Your task to perform on an android device: Search for flights from Zurich to Helsinki Image 0: 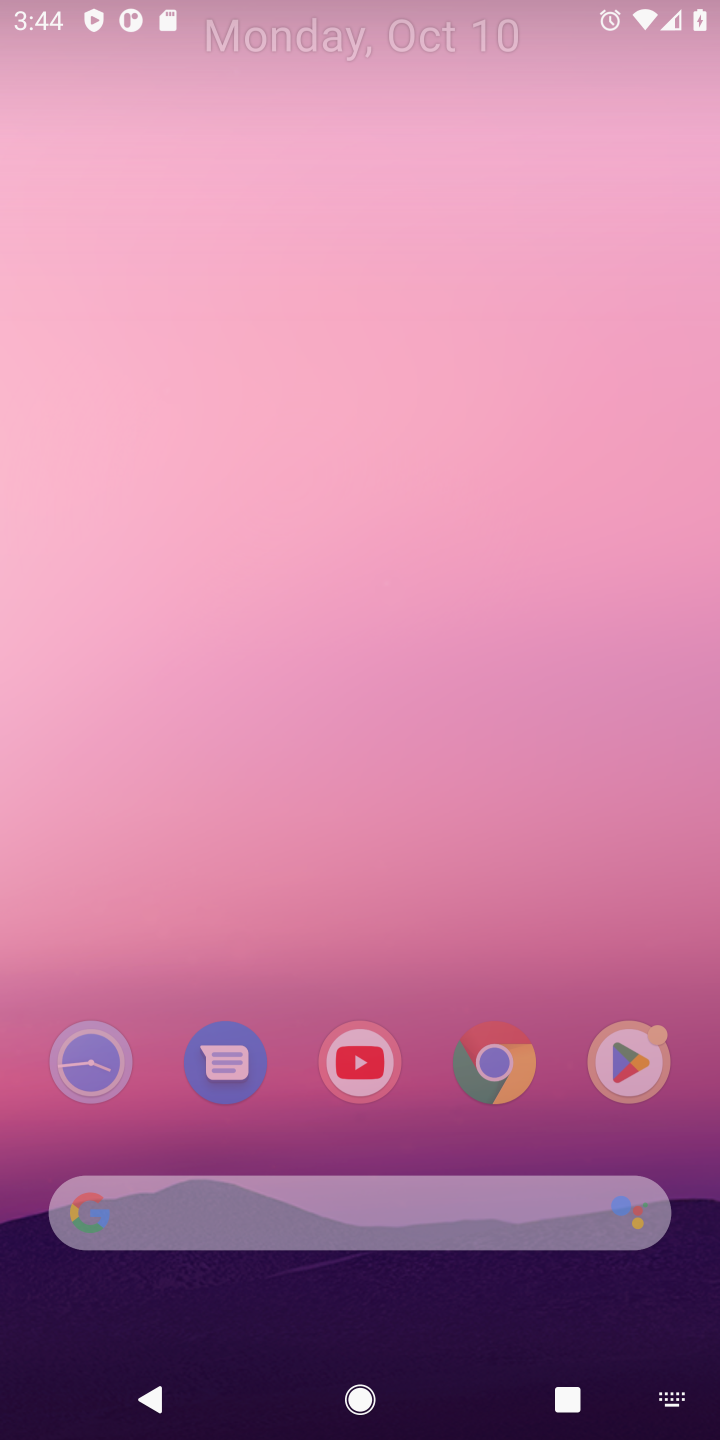
Step 0: click (306, 671)
Your task to perform on an android device: Search for flights from Zurich to Helsinki Image 1: 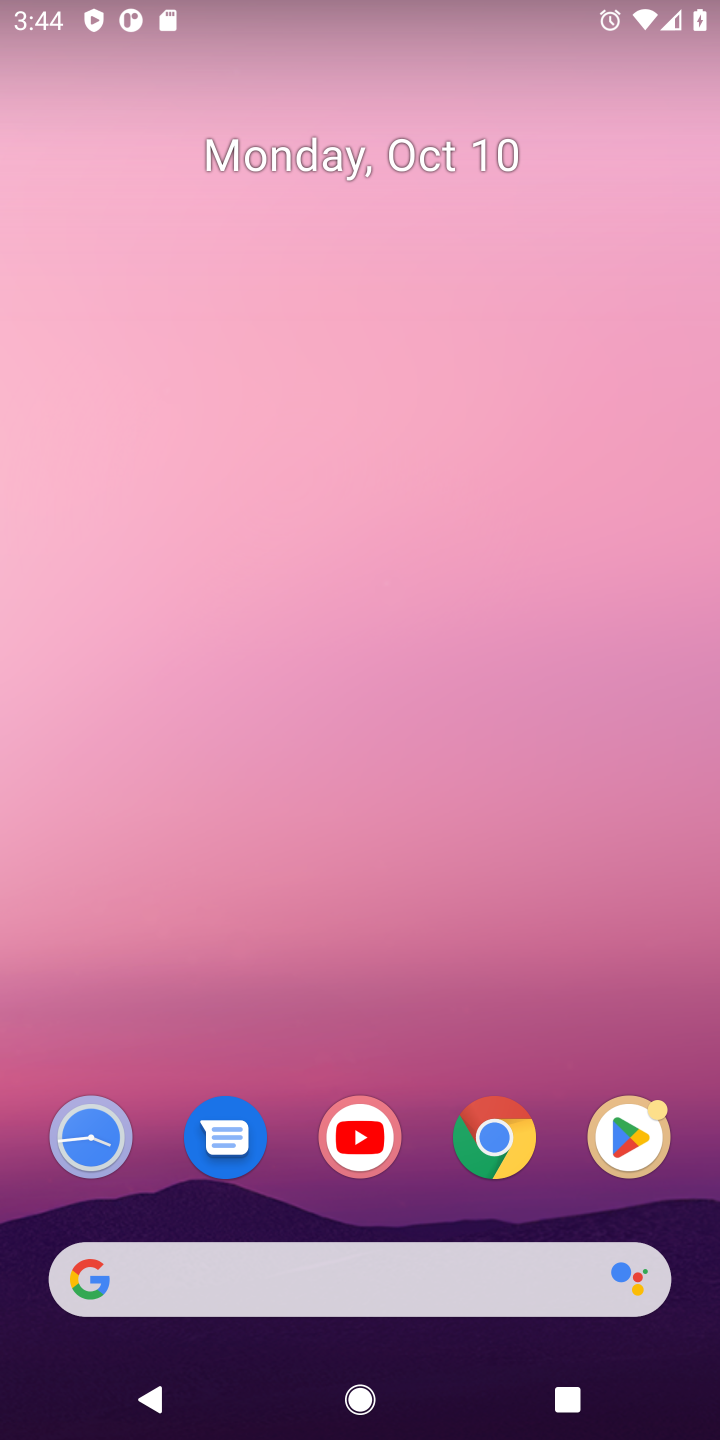
Step 1: task complete